Your task to perform on an android device: Go to accessibility settings Image 0: 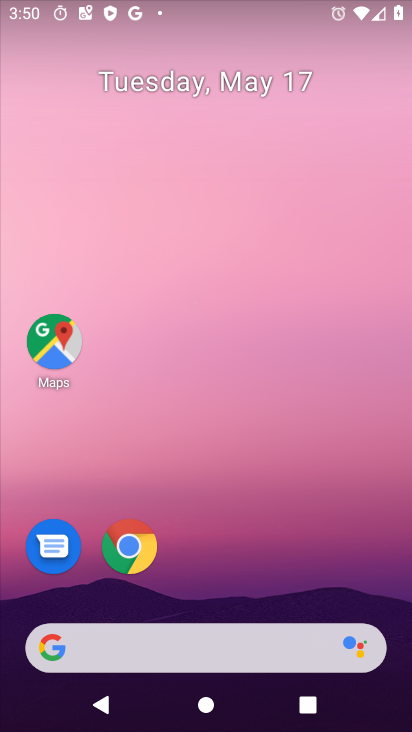
Step 0: drag from (392, 672) to (387, 468)
Your task to perform on an android device: Go to accessibility settings Image 1: 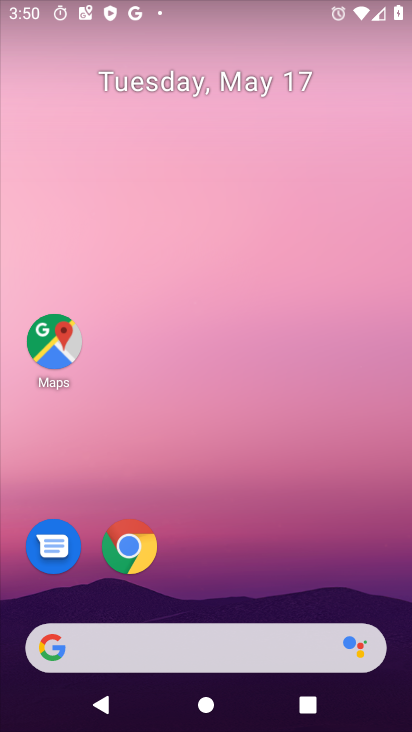
Step 1: drag from (394, 591) to (368, 331)
Your task to perform on an android device: Go to accessibility settings Image 2: 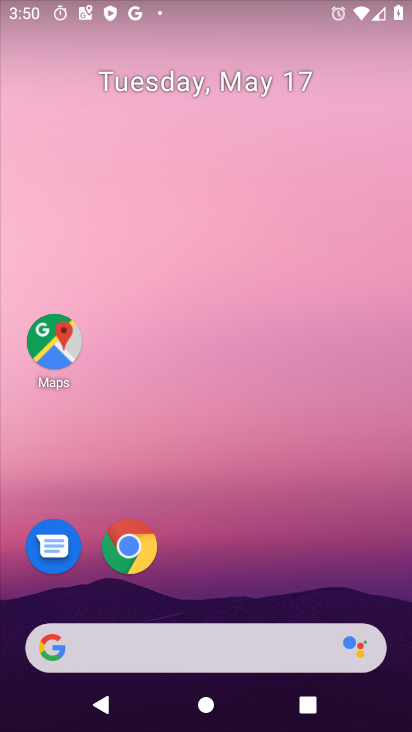
Step 2: click (344, 342)
Your task to perform on an android device: Go to accessibility settings Image 3: 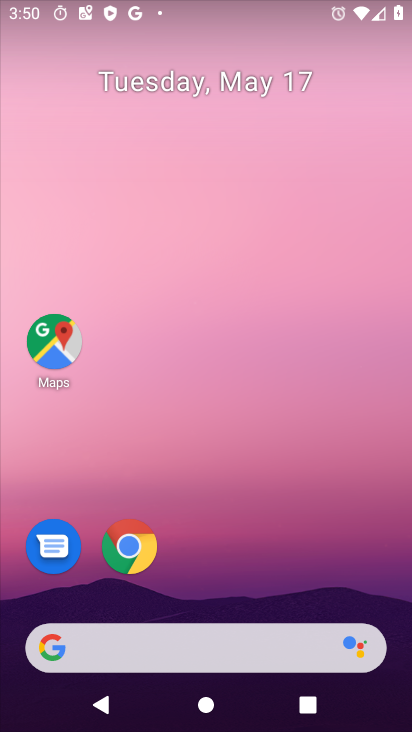
Step 3: drag from (397, 581) to (375, 393)
Your task to perform on an android device: Go to accessibility settings Image 4: 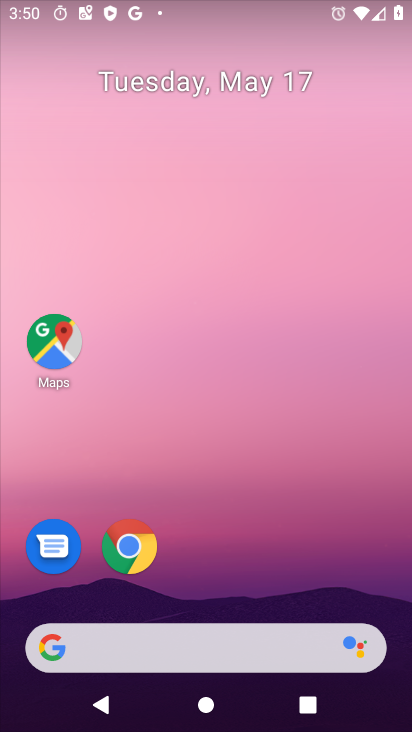
Step 4: drag from (399, 688) to (371, 338)
Your task to perform on an android device: Go to accessibility settings Image 5: 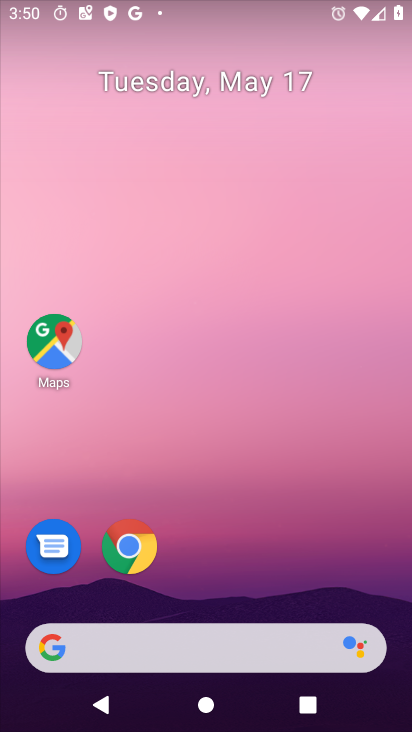
Step 5: drag from (366, 430) to (349, 324)
Your task to perform on an android device: Go to accessibility settings Image 6: 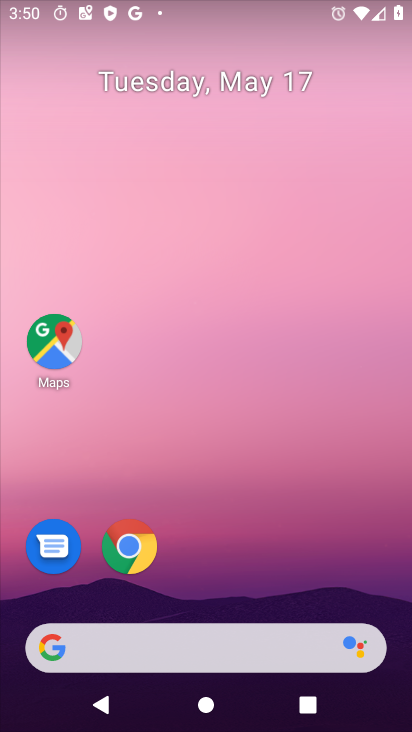
Step 6: click (331, 187)
Your task to perform on an android device: Go to accessibility settings Image 7: 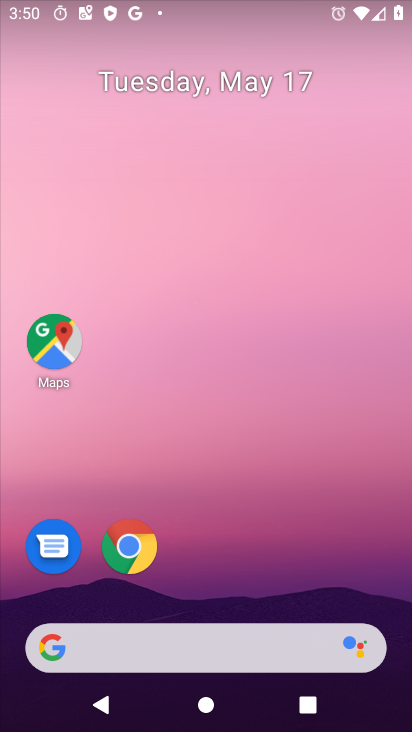
Step 7: drag from (393, 614) to (391, 224)
Your task to perform on an android device: Go to accessibility settings Image 8: 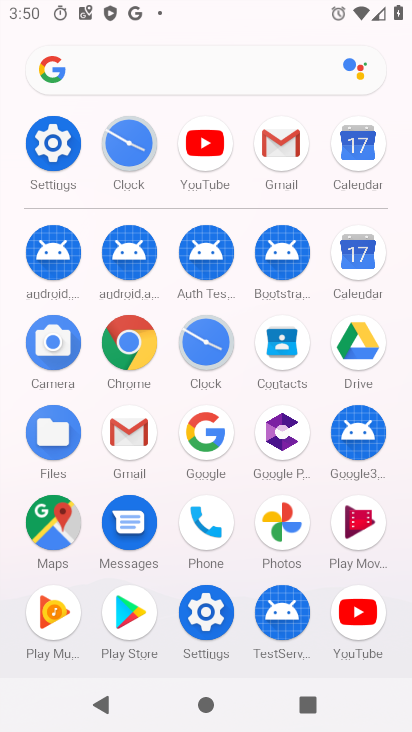
Step 8: click (45, 139)
Your task to perform on an android device: Go to accessibility settings Image 9: 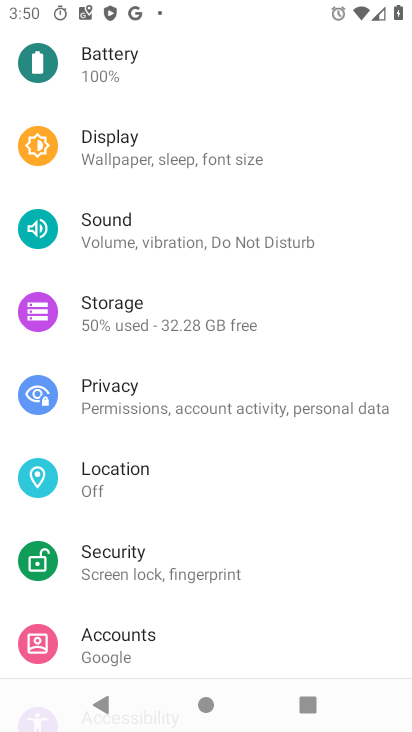
Step 9: drag from (322, 632) to (332, 274)
Your task to perform on an android device: Go to accessibility settings Image 10: 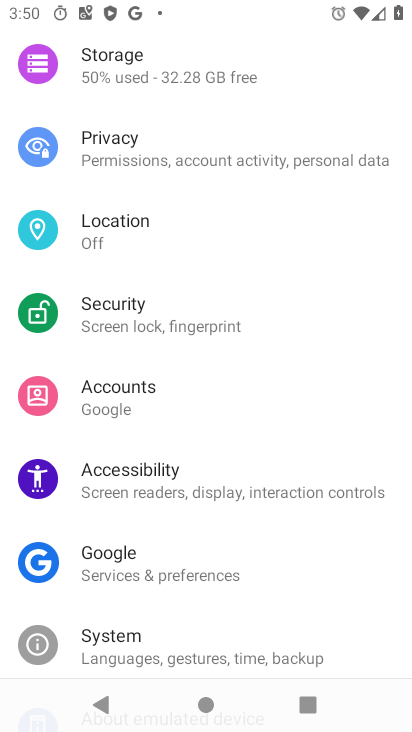
Step 10: click (114, 471)
Your task to perform on an android device: Go to accessibility settings Image 11: 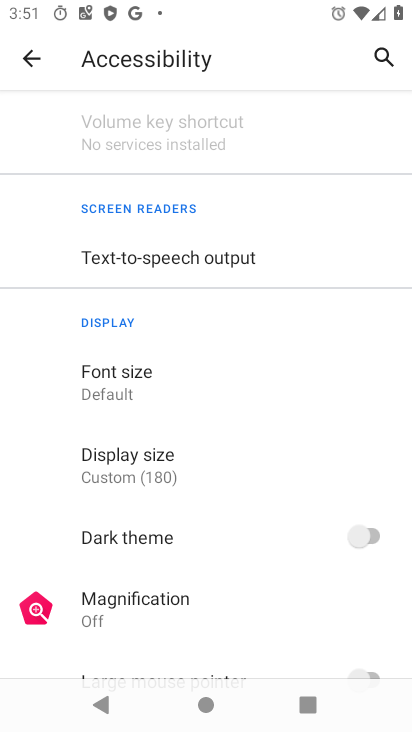
Step 11: task complete